Your task to perform on an android device: See recent photos Image 0: 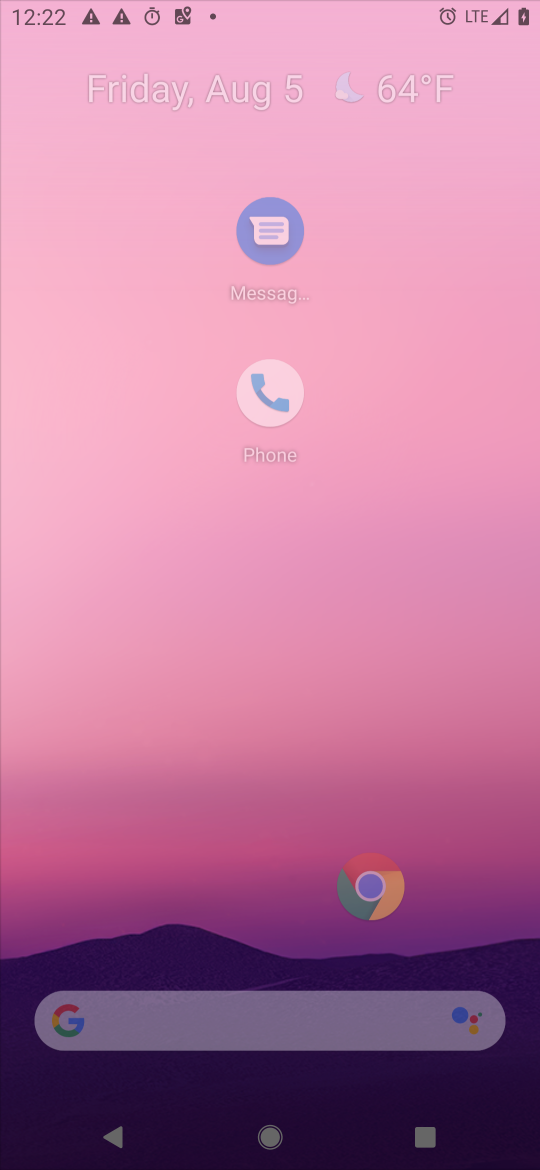
Step 0: click (349, 272)
Your task to perform on an android device: See recent photos Image 1: 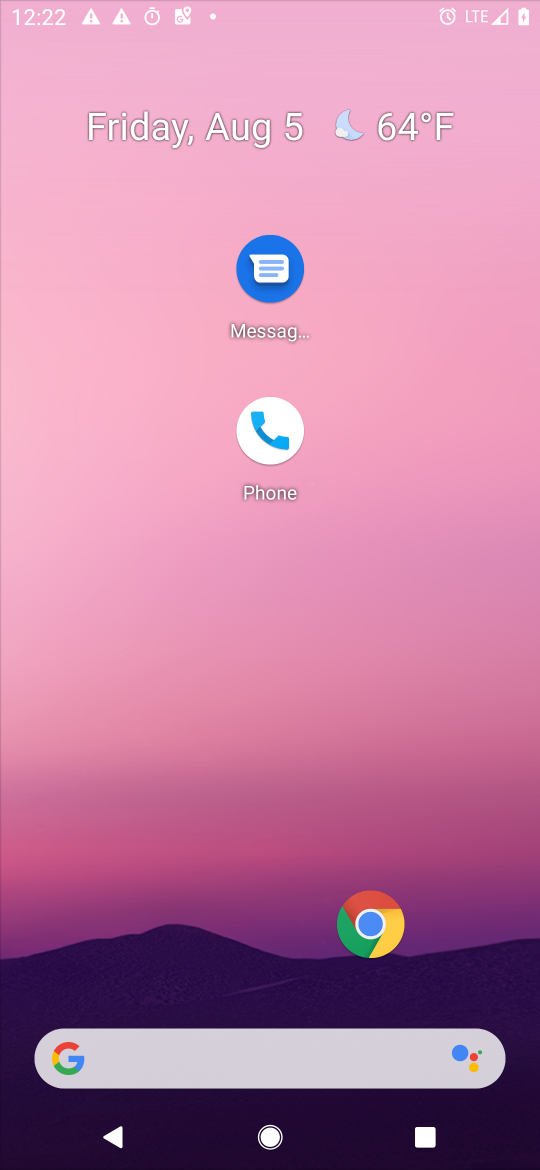
Step 1: press home button
Your task to perform on an android device: See recent photos Image 2: 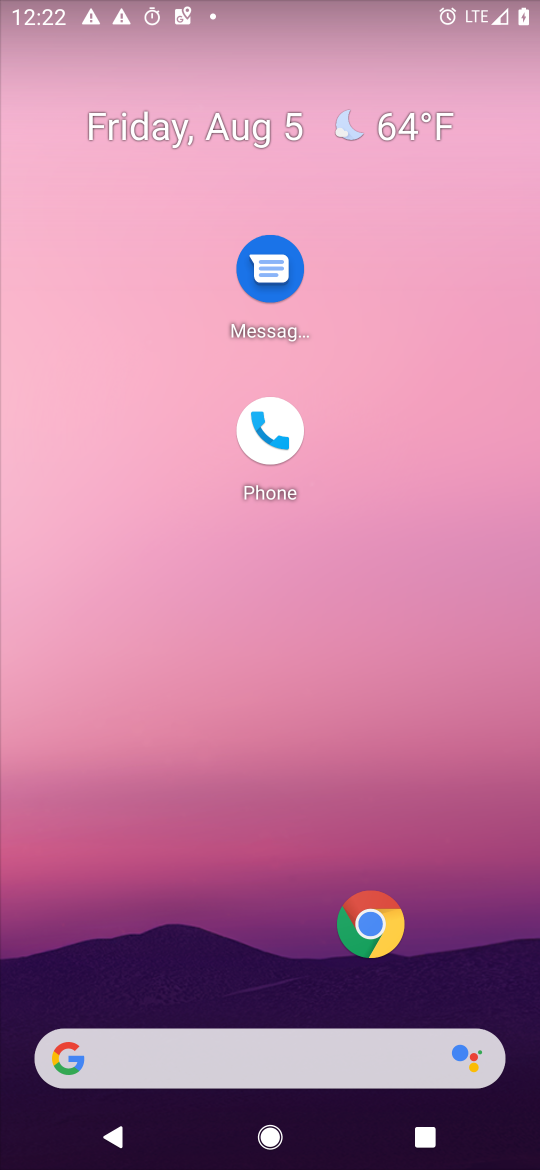
Step 2: press home button
Your task to perform on an android device: See recent photos Image 3: 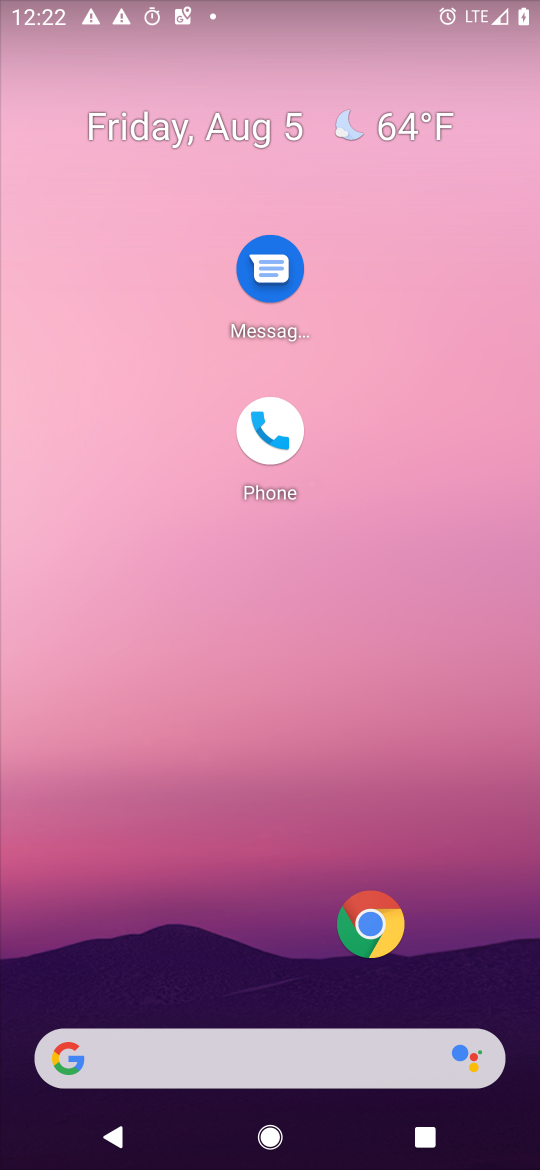
Step 3: click (304, 513)
Your task to perform on an android device: See recent photos Image 4: 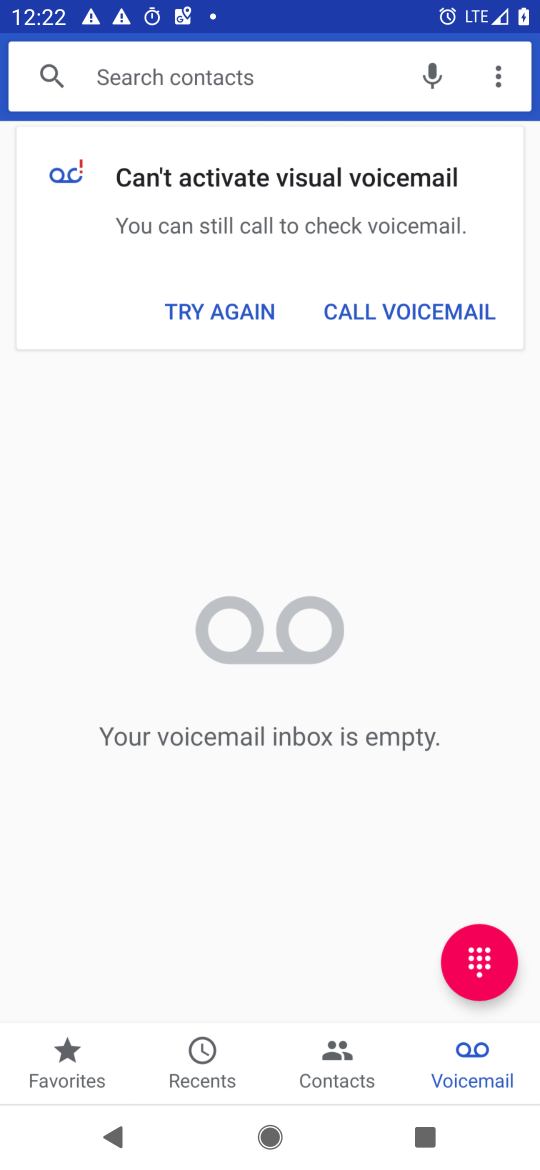
Step 4: drag from (272, 890) to (413, 118)
Your task to perform on an android device: See recent photos Image 5: 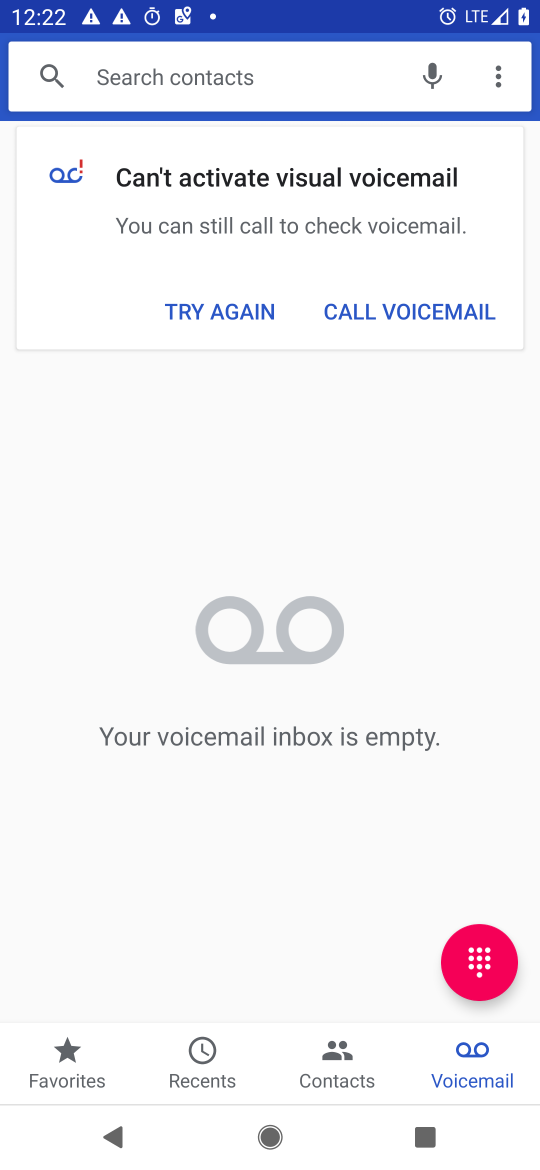
Step 5: drag from (421, 427) to (456, 206)
Your task to perform on an android device: See recent photos Image 6: 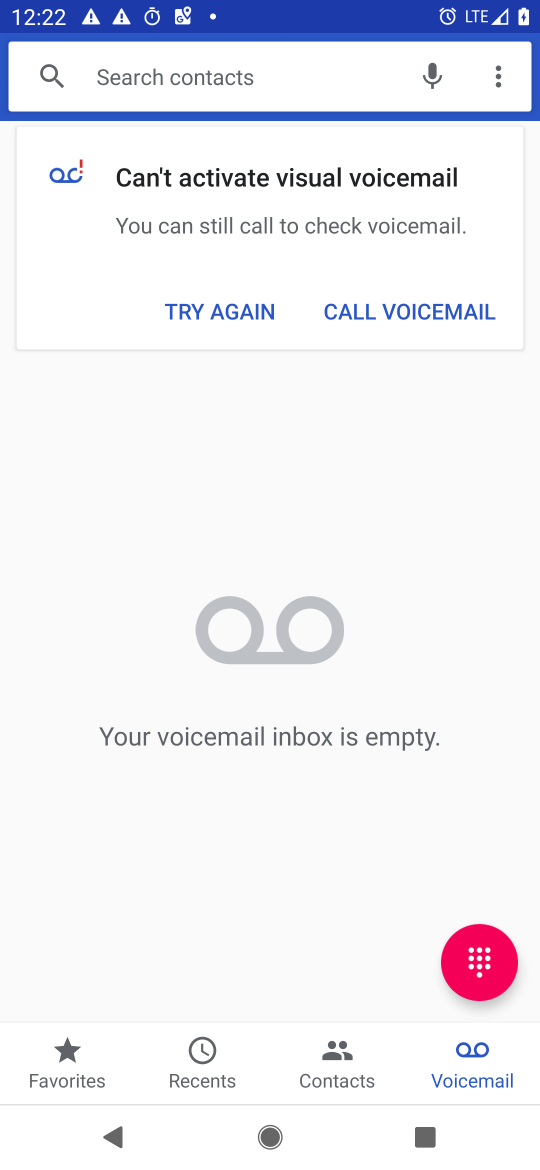
Step 6: drag from (299, 742) to (358, 365)
Your task to perform on an android device: See recent photos Image 7: 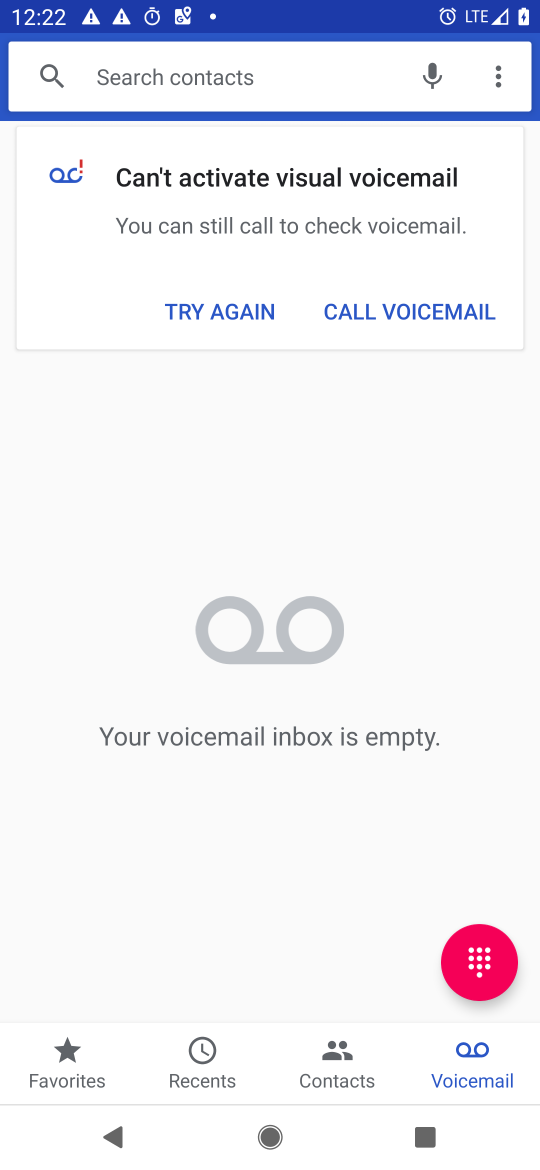
Step 7: press back button
Your task to perform on an android device: See recent photos Image 8: 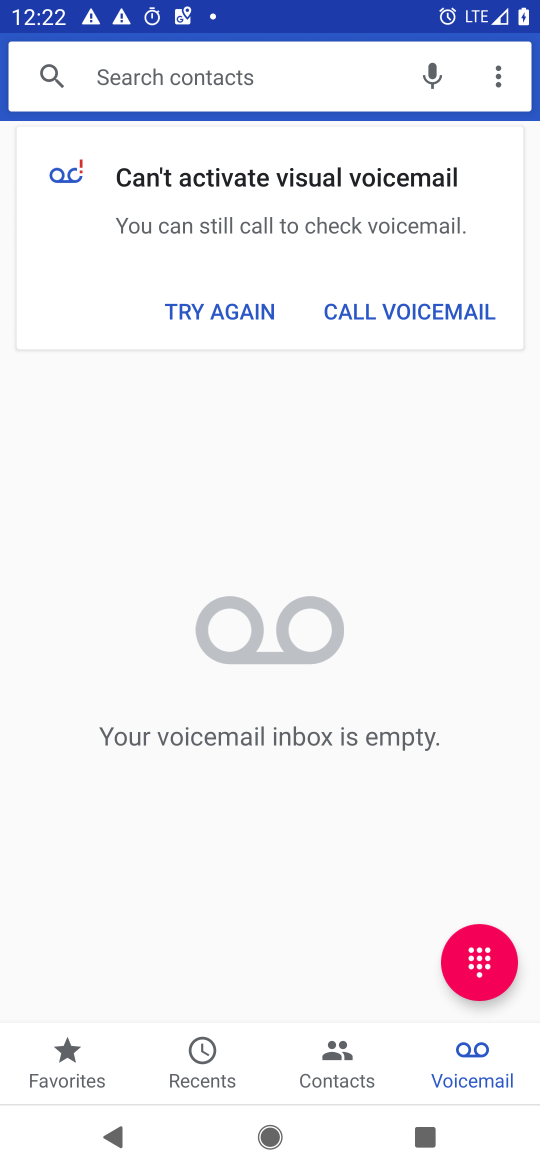
Step 8: press home button
Your task to perform on an android device: See recent photos Image 9: 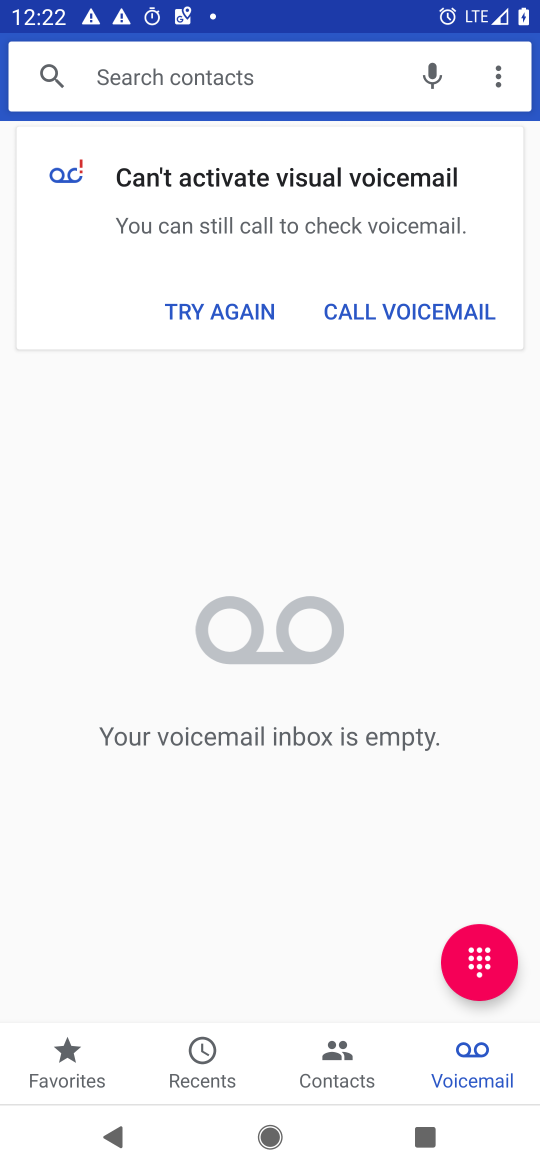
Step 9: click (315, 281)
Your task to perform on an android device: See recent photos Image 10: 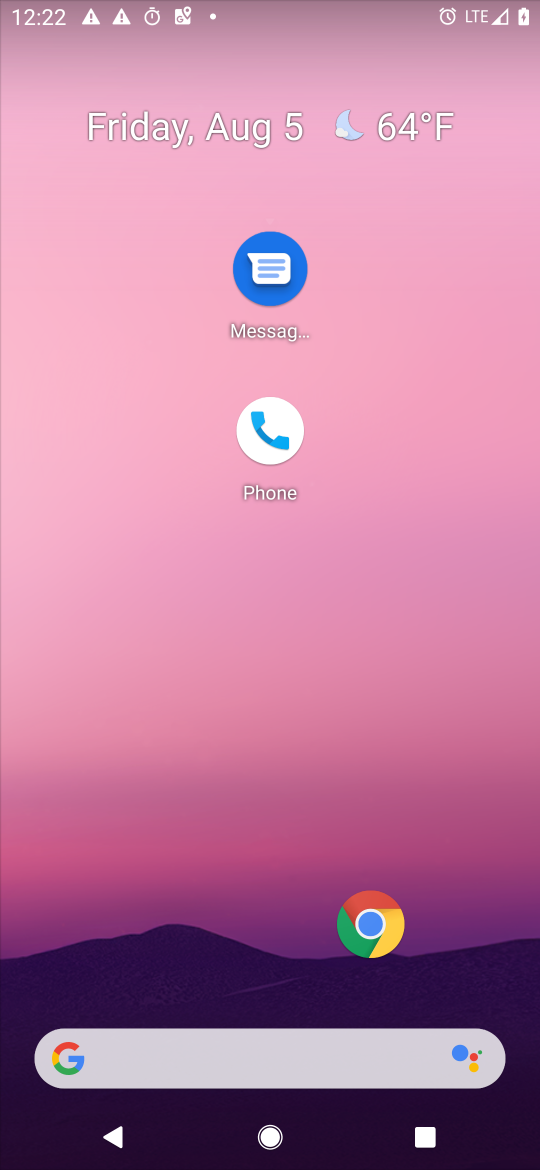
Step 10: drag from (376, 910) to (312, 335)
Your task to perform on an android device: See recent photos Image 11: 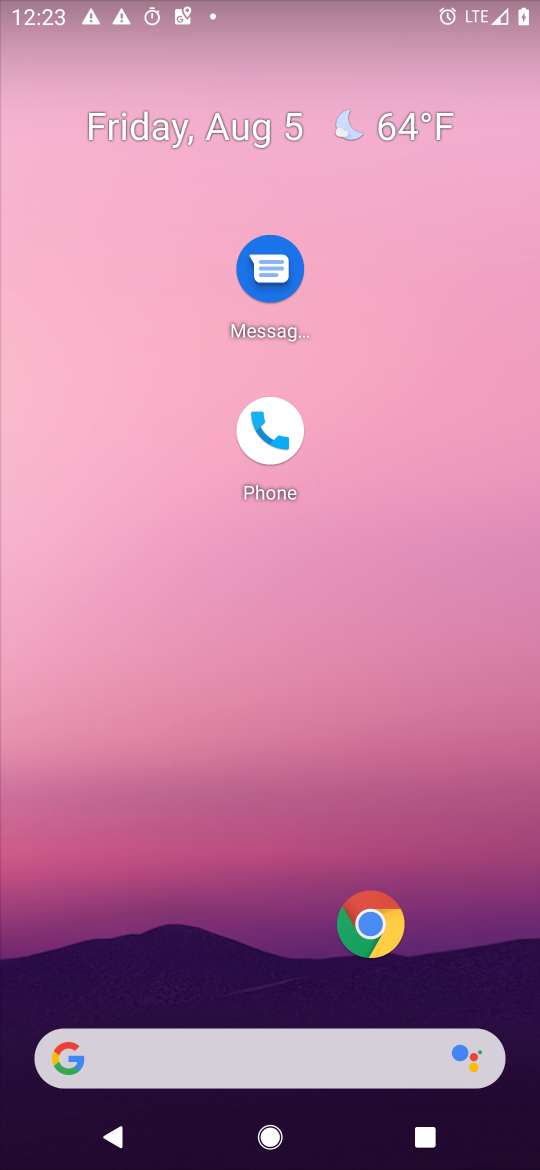
Step 11: drag from (284, 933) to (287, 373)
Your task to perform on an android device: See recent photos Image 12: 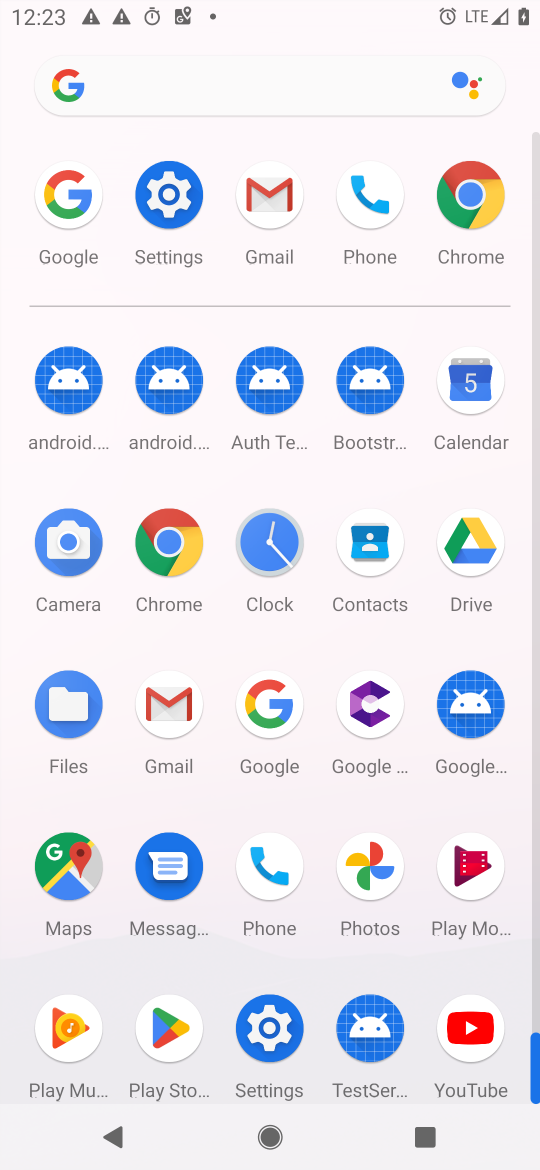
Step 12: click (359, 860)
Your task to perform on an android device: See recent photos Image 13: 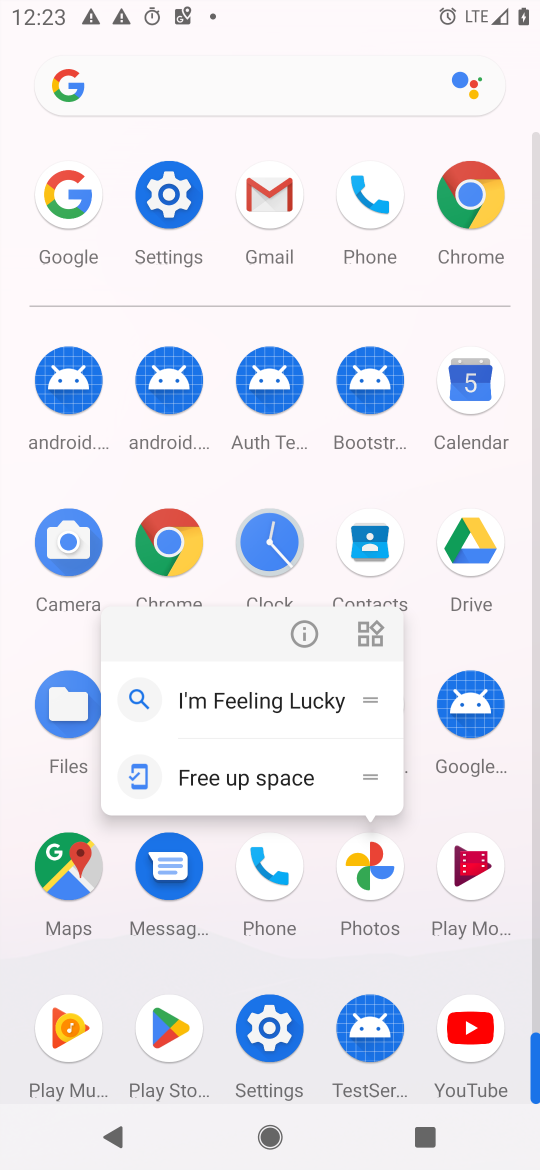
Step 13: click (297, 636)
Your task to perform on an android device: See recent photos Image 14: 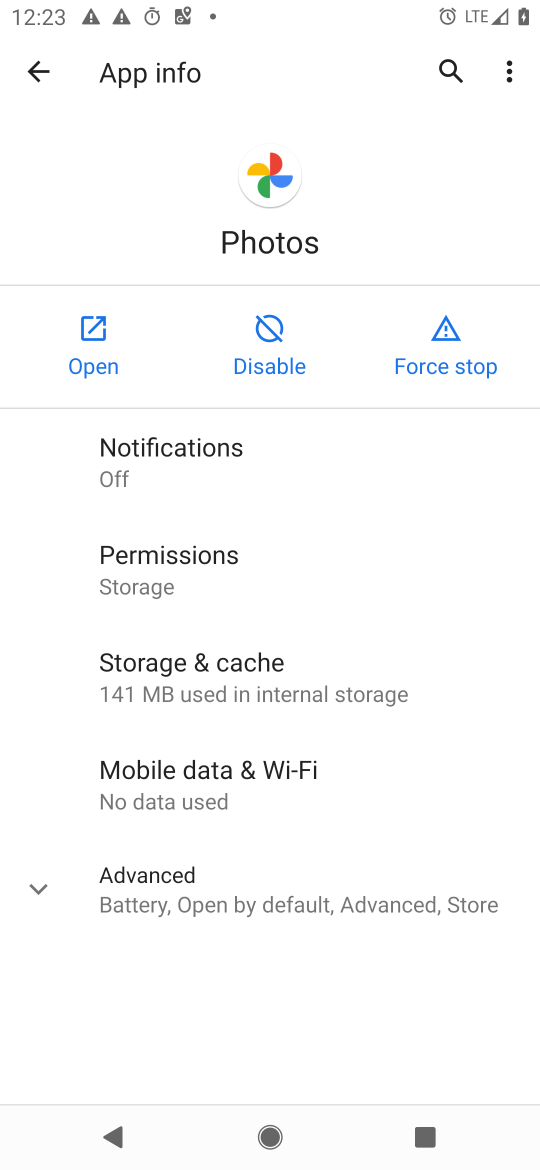
Step 14: click (88, 353)
Your task to perform on an android device: See recent photos Image 15: 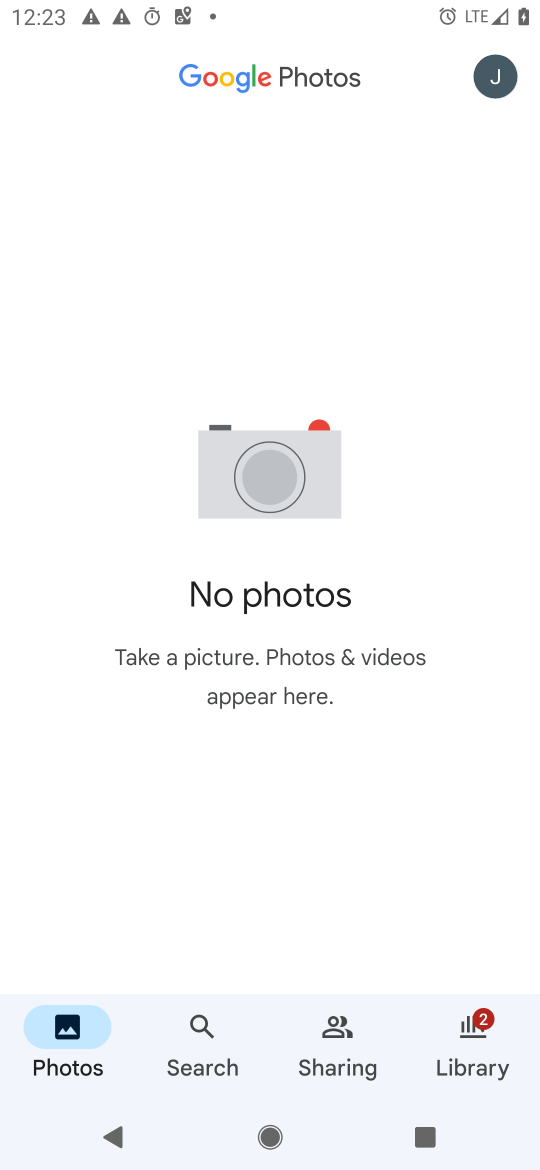
Step 15: task complete